Your task to perform on an android device: star an email in the gmail app Image 0: 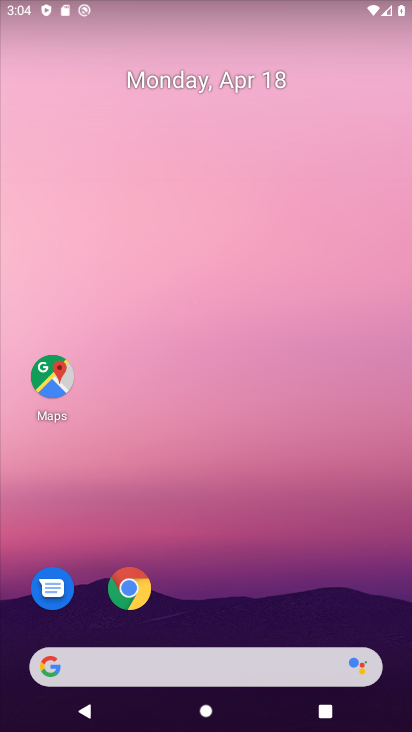
Step 0: drag from (173, 582) to (225, 115)
Your task to perform on an android device: star an email in the gmail app Image 1: 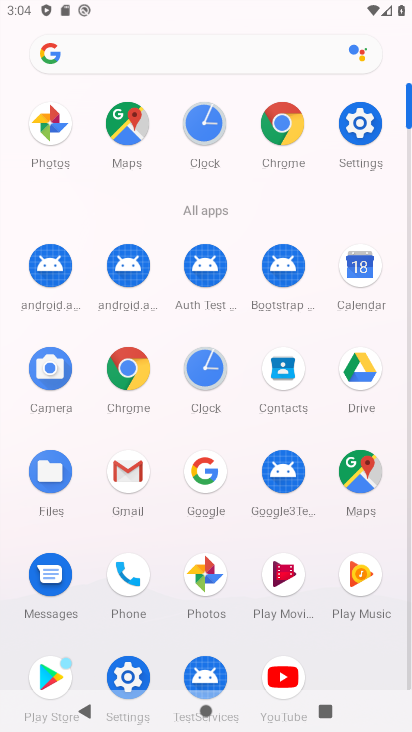
Step 1: click (128, 481)
Your task to perform on an android device: star an email in the gmail app Image 2: 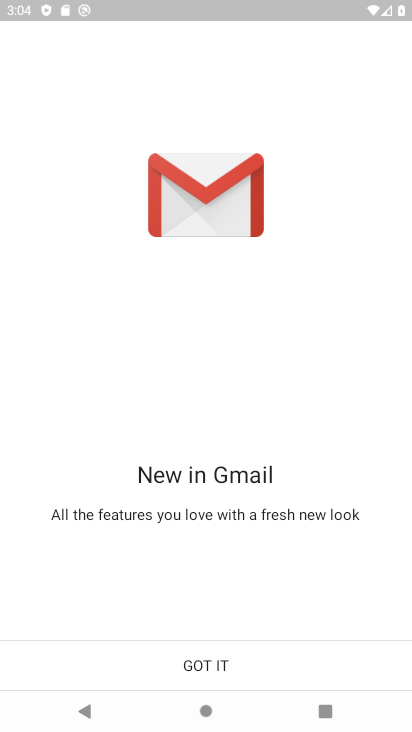
Step 2: click (211, 669)
Your task to perform on an android device: star an email in the gmail app Image 3: 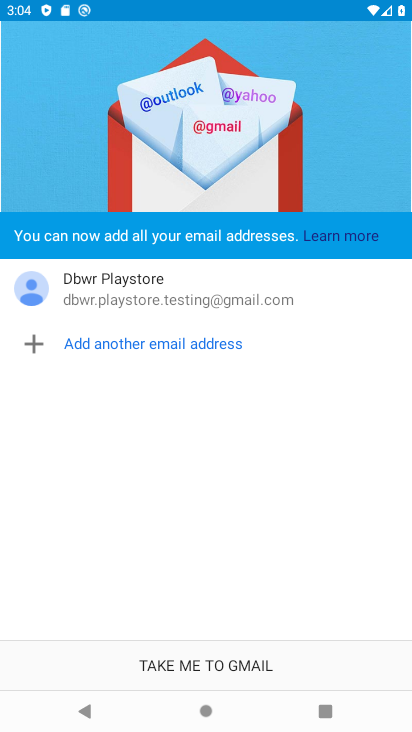
Step 3: click (211, 669)
Your task to perform on an android device: star an email in the gmail app Image 4: 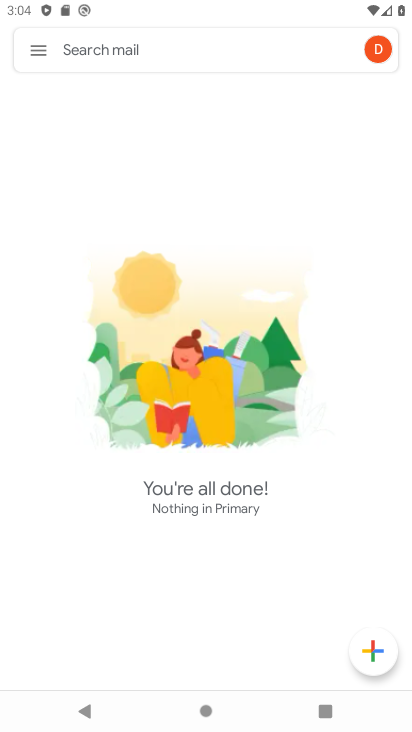
Step 4: click (36, 53)
Your task to perform on an android device: star an email in the gmail app Image 5: 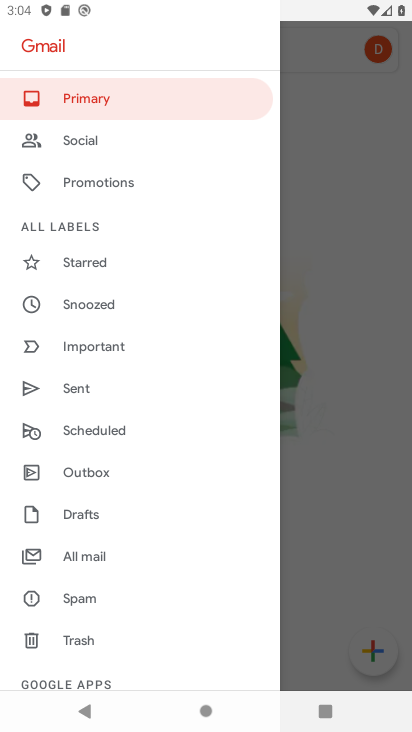
Step 5: click (123, 557)
Your task to perform on an android device: star an email in the gmail app Image 6: 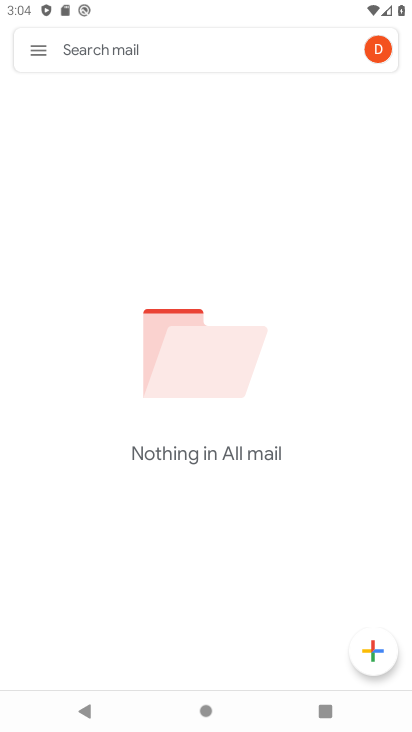
Step 6: task complete